Your task to perform on an android device: toggle javascript in the chrome app Image 0: 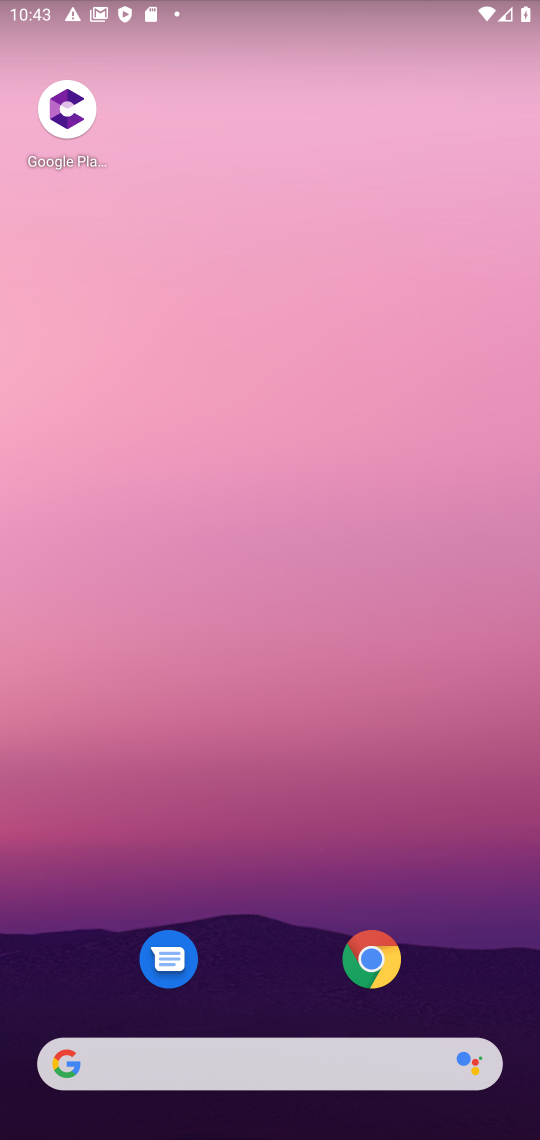
Step 0: drag from (483, 979) to (373, 348)
Your task to perform on an android device: toggle javascript in the chrome app Image 1: 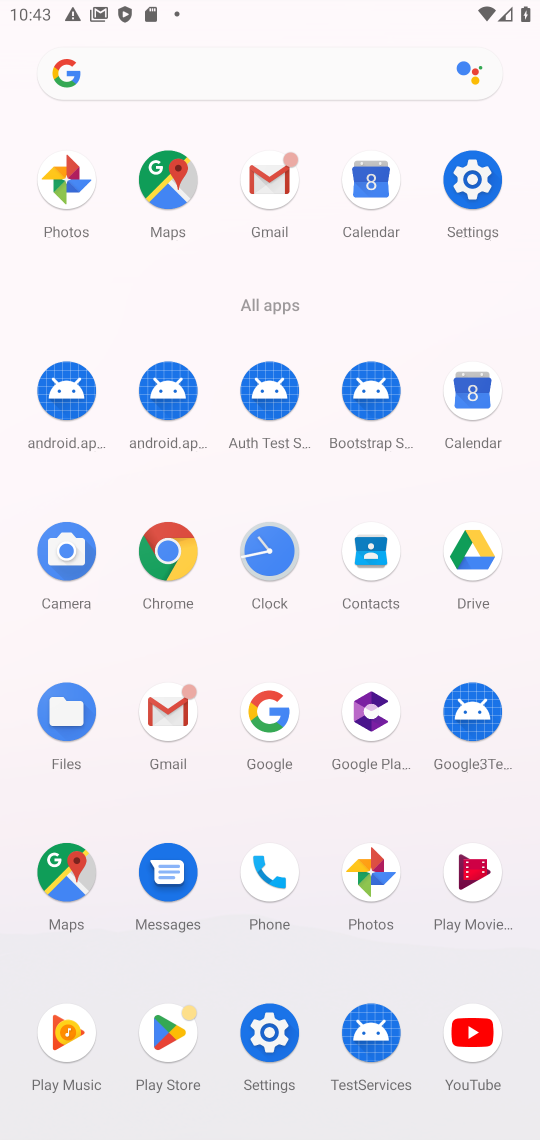
Step 1: click (165, 574)
Your task to perform on an android device: toggle javascript in the chrome app Image 2: 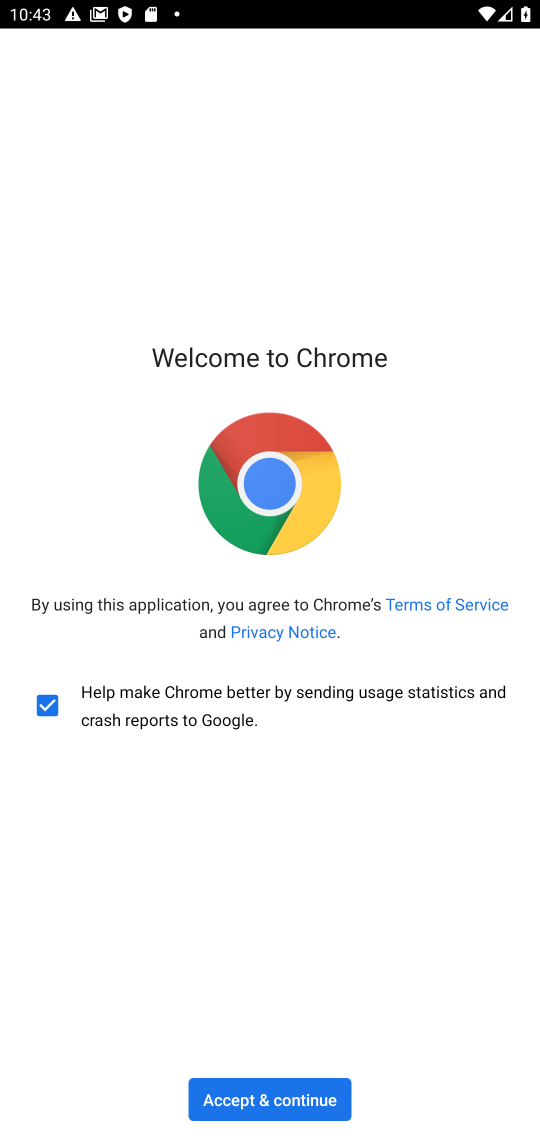
Step 2: click (286, 1105)
Your task to perform on an android device: toggle javascript in the chrome app Image 3: 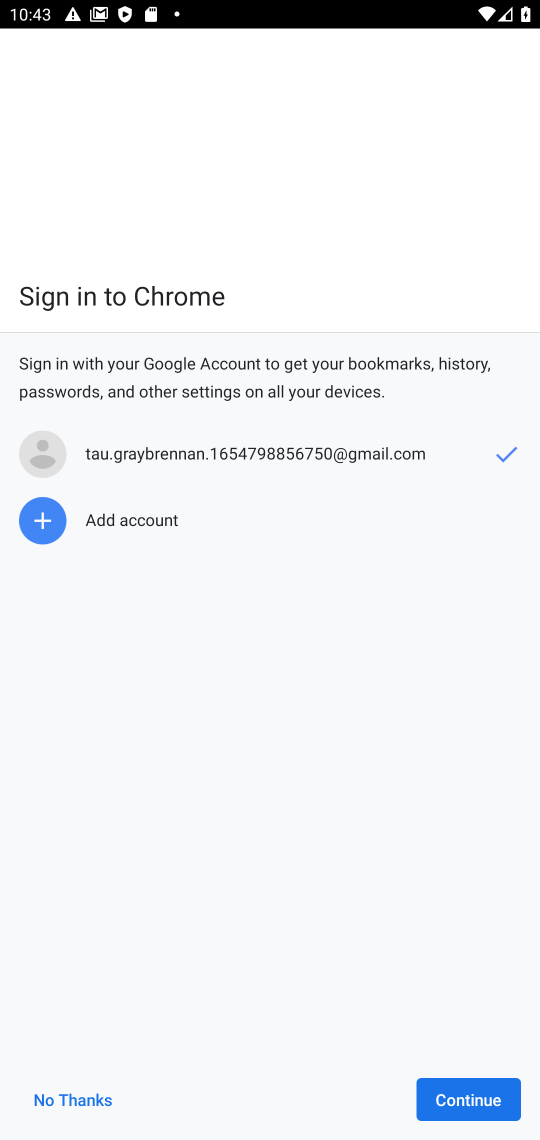
Step 3: click (420, 1108)
Your task to perform on an android device: toggle javascript in the chrome app Image 4: 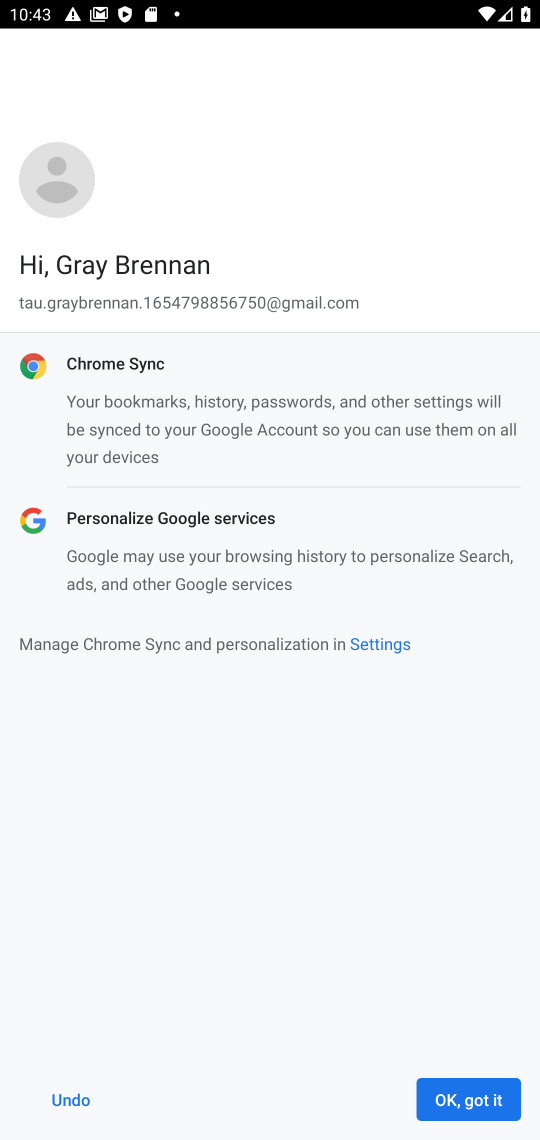
Step 4: click (431, 1090)
Your task to perform on an android device: toggle javascript in the chrome app Image 5: 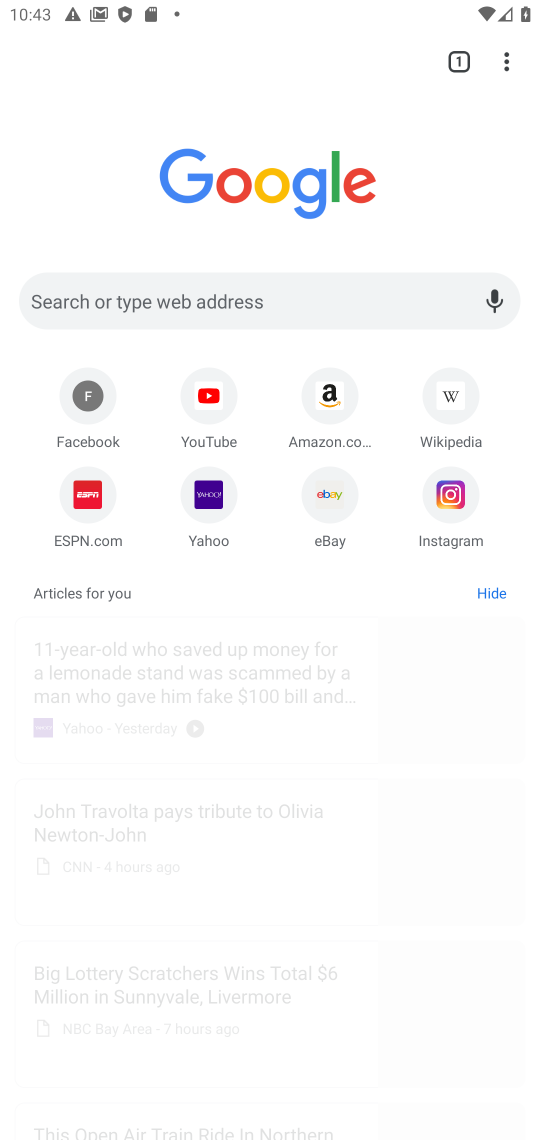
Step 5: click (502, 58)
Your task to perform on an android device: toggle javascript in the chrome app Image 6: 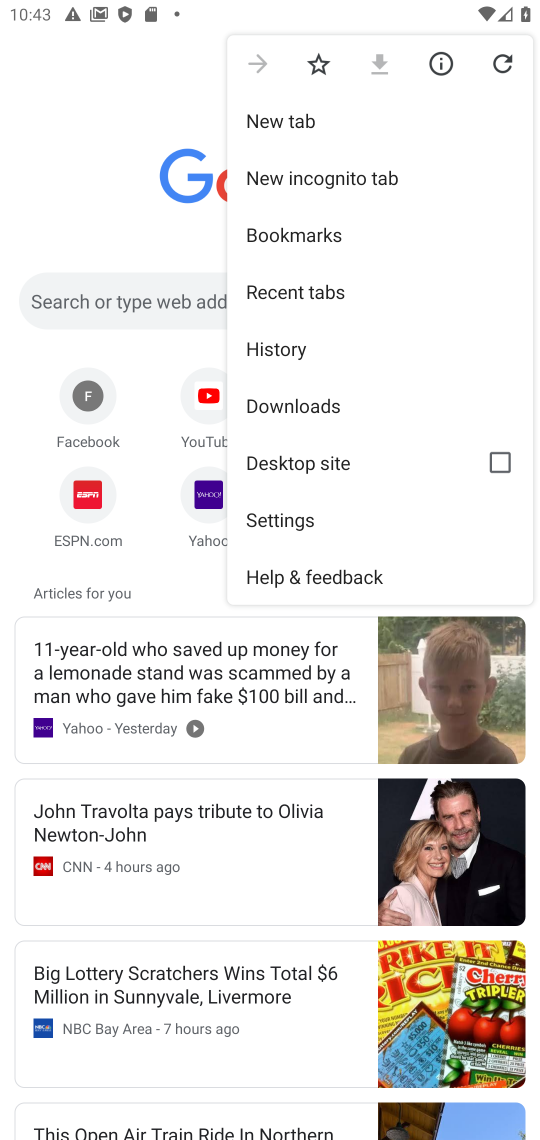
Step 6: click (337, 512)
Your task to perform on an android device: toggle javascript in the chrome app Image 7: 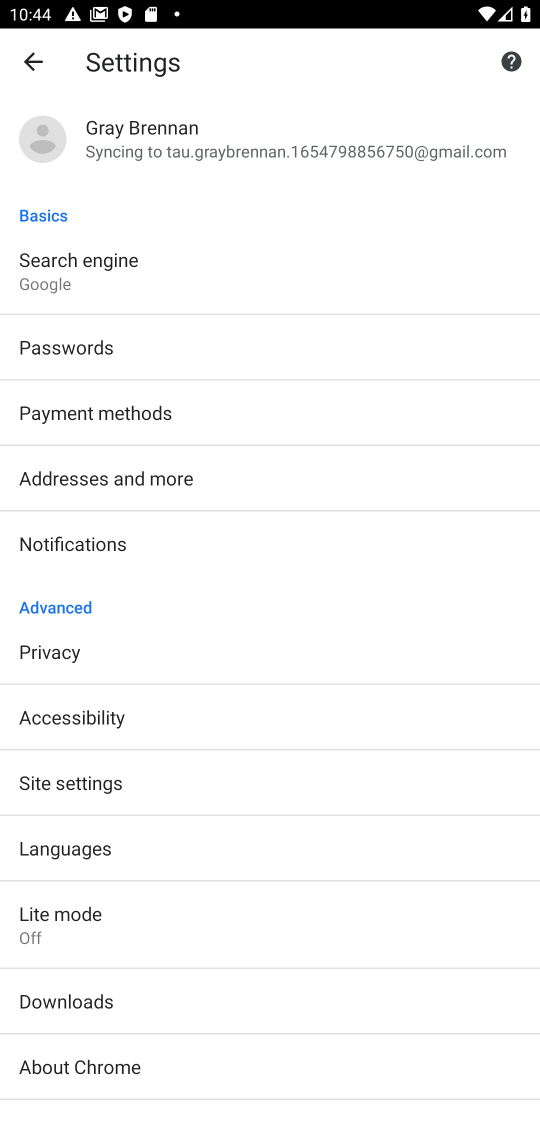
Step 7: click (160, 792)
Your task to perform on an android device: toggle javascript in the chrome app Image 8: 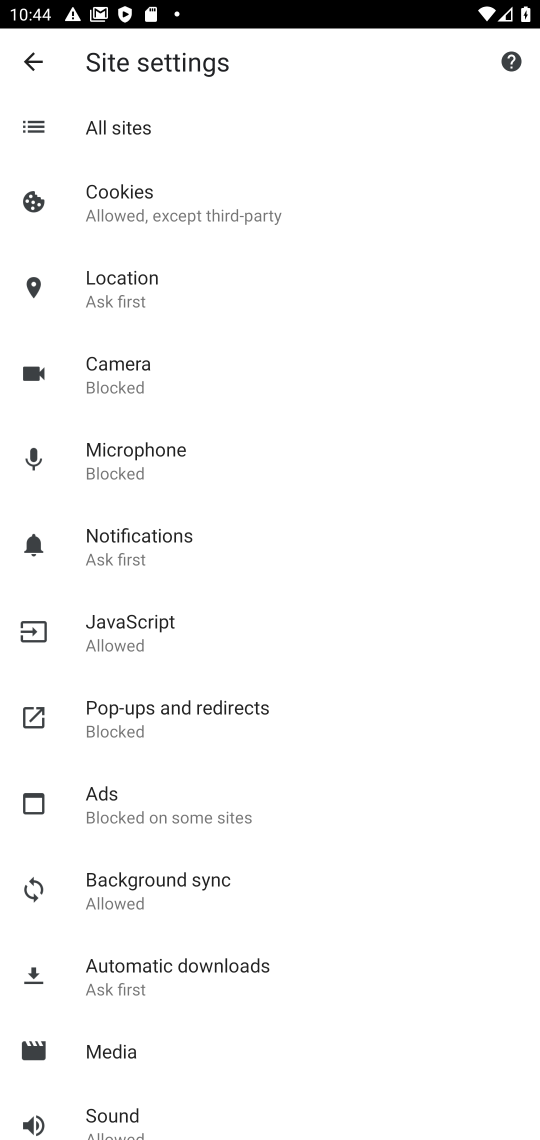
Step 8: click (182, 646)
Your task to perform on an android device: toggle javascript in the chrome app Image 9: 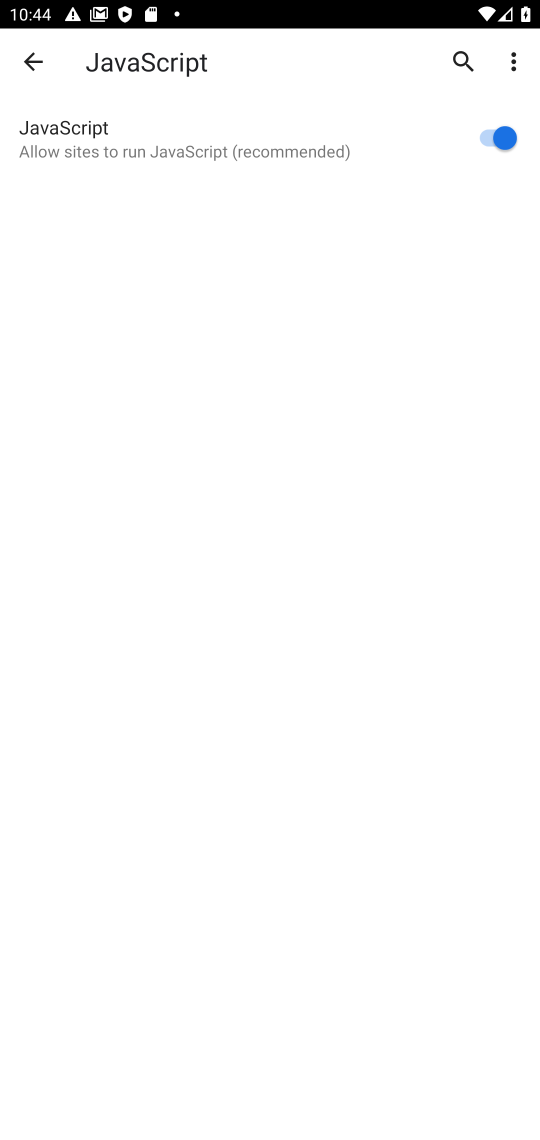
Step 9: click (489, 152)
Your task to perform on an android device: toggle javascript in the chrome app Image 10: 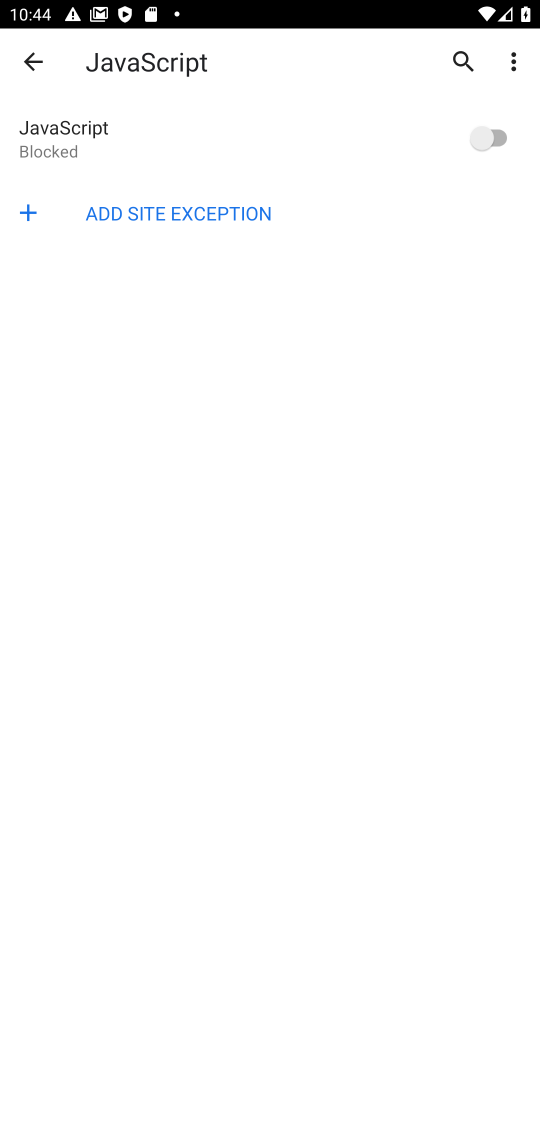
Step 10: task complete